Your task to perform on an android device: Go to Google maps Image 0: 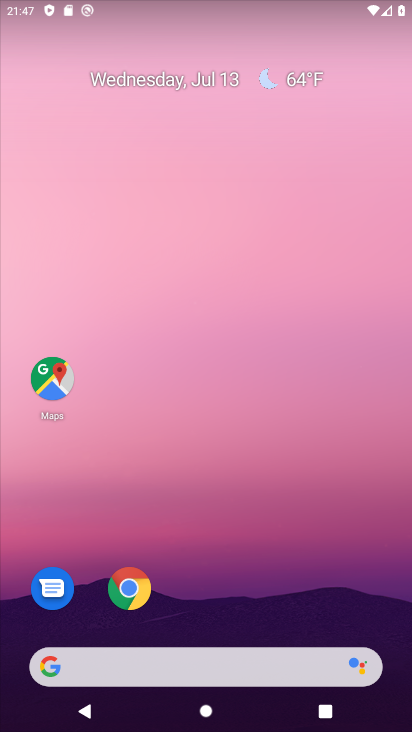
Step 0: click (46, 362)
Your task to perform on an android device: Go to Google maps Image 1: 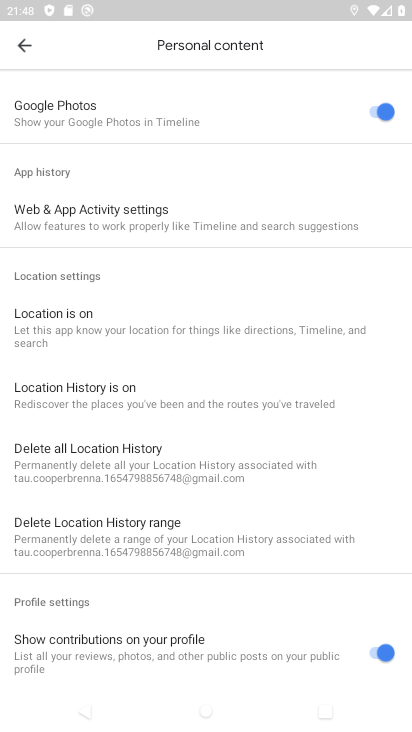
Step 1: task complete